Your task to perform on an android device: Show me popular videos on Youtube Image 0: 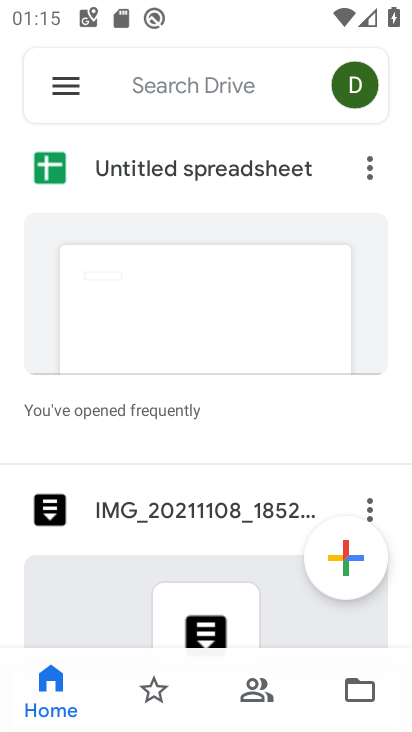
Step 0: press home button
Your task to perform on an android device: Show me popular videos on Youtube Image 1: 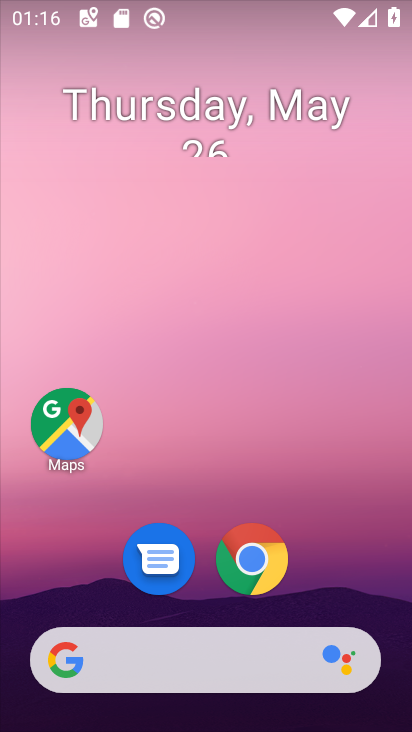
Step 1: drag from (337, 572) to (339, 179)
Your task to perform on an android device: Show me popular videos on Youtube Image 2: 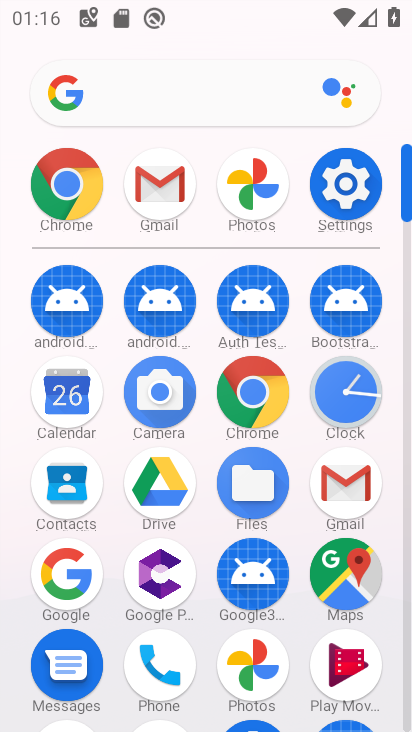
Step 2: drag from (189, 709) to (184, 192)
Your task to perform on an android device: Show me popular videos on Youtube Image 3: 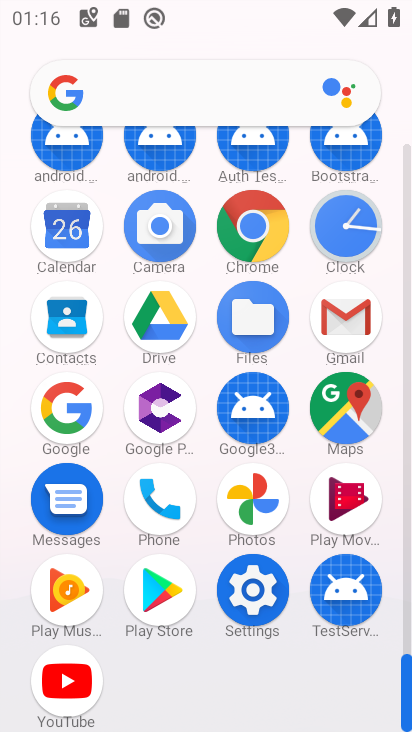
Step 3: click (67, 684)
Your task to perform on an android device: Show me popular videos on Youtube Image 4: 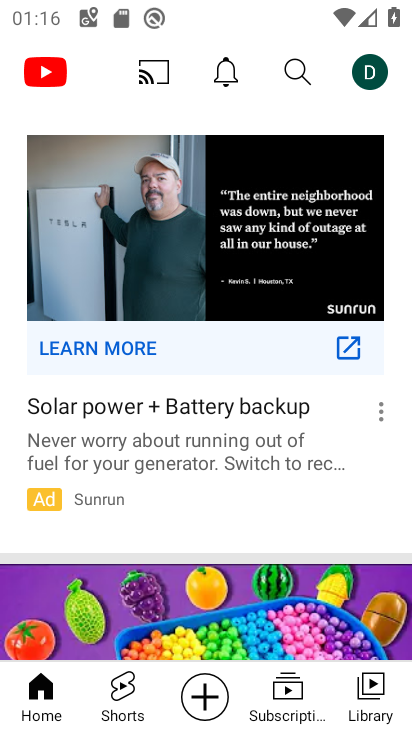
Step 4: click (46, 697)
Your task to perform on an android device: Show me popular videos on Youtube Image 5: 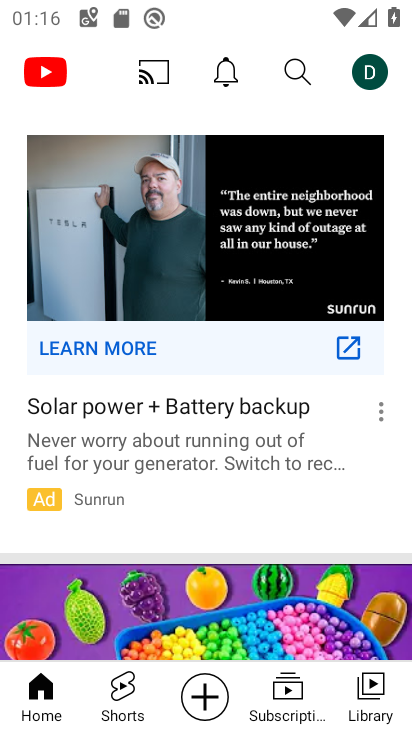
Step 5: click (45, 703)
Your task to perform on an android device: Show me popular videos on Youtube Image 6: 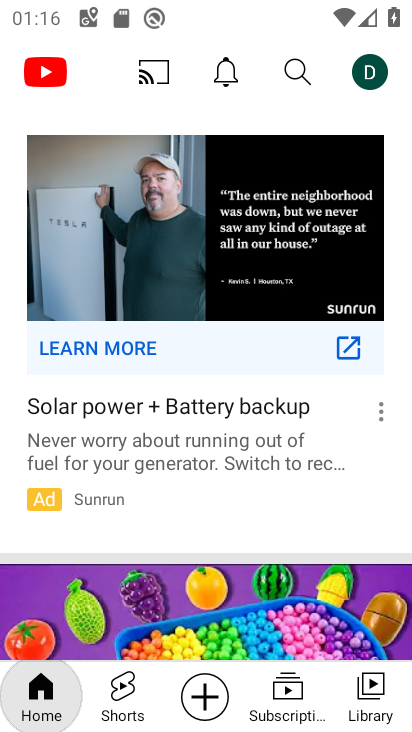
Step 6: click (41, 703)
Your task to perform on an android device: Show me popular videos on Youtube Image 7: 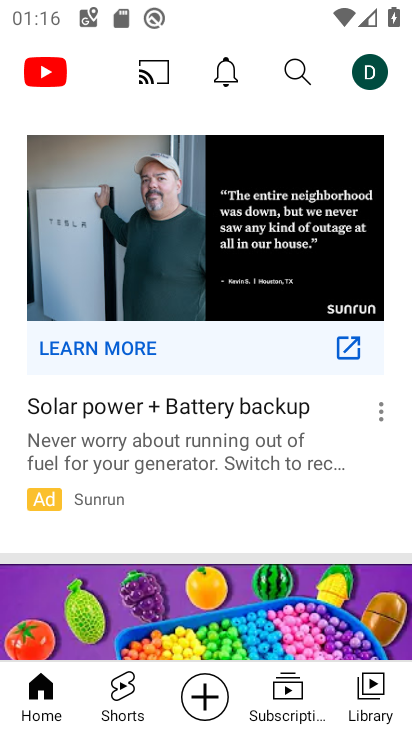
Step 7: drag from (13, 127) to (19, 612)
Your task to perform on an android device: Show me popular videos on Youtube Image 8: 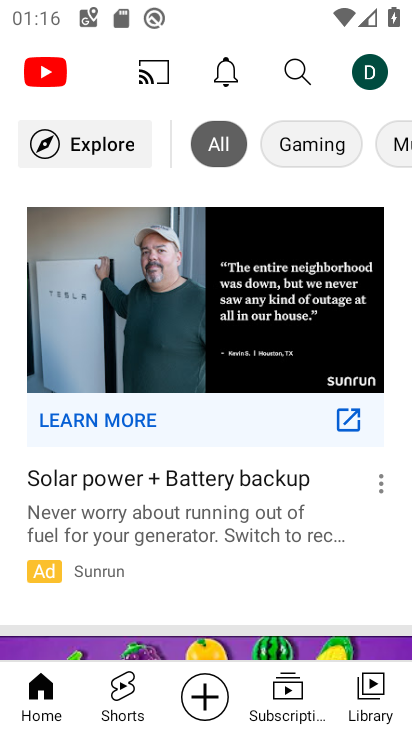
Step 8: click (86, 142)
Your task to perform on an android device: Show me popular videos on Youtube Image 9: 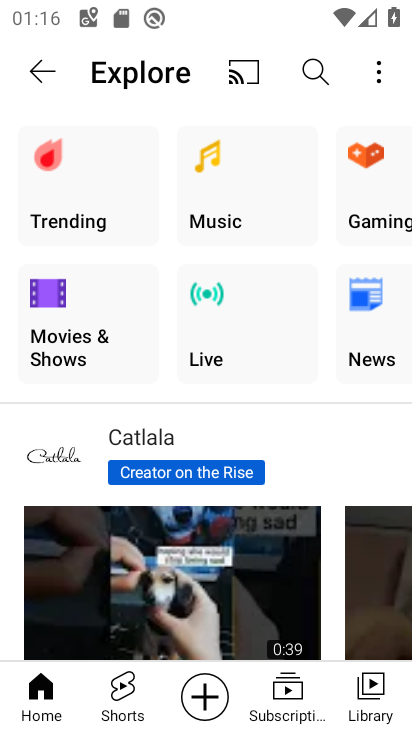
Step 9: click (71, 172)
Your task to perform on an android device: Show me popular videos on Youtube Image 10: 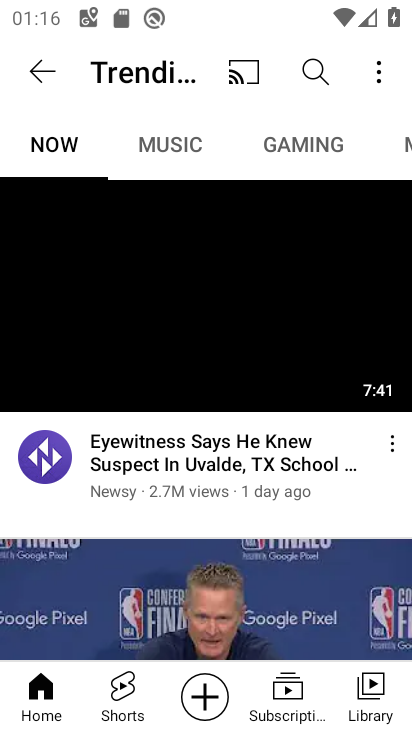
Step 10: task complete